Your task to perform on an android device: What is the recent news? Image 0: 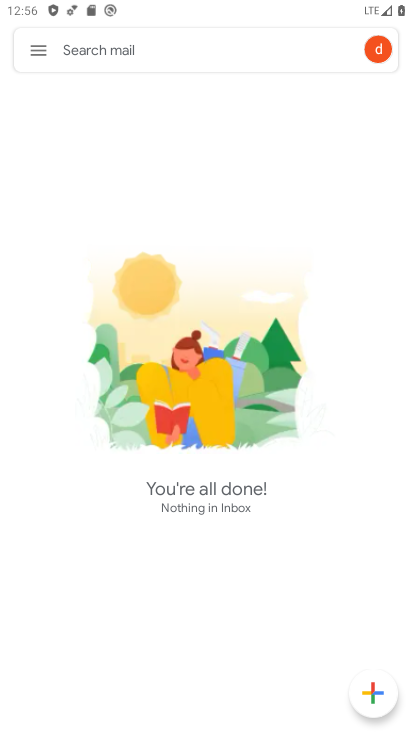
Step 0: press home button
Your task to perform on an android device: What is the recent news? Image 1: 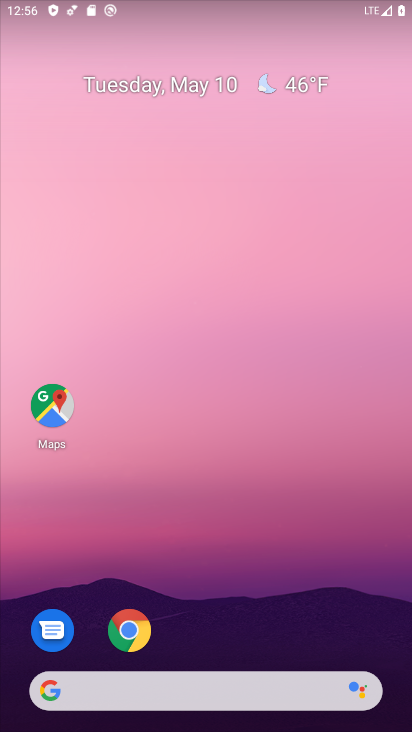
Step 1: drag from (210, 670) to (149, 89)
Your task to perform on an android device: What is the recent news? Image 2: 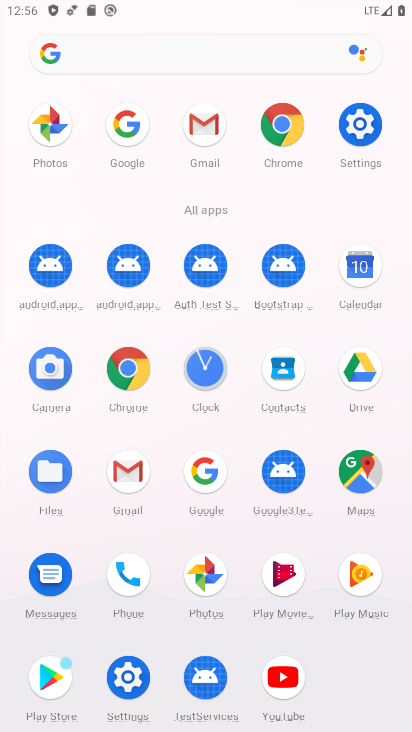
Step 2: click (201, 481)
Your task to perform on an android device: What is the recent news? Image 3: 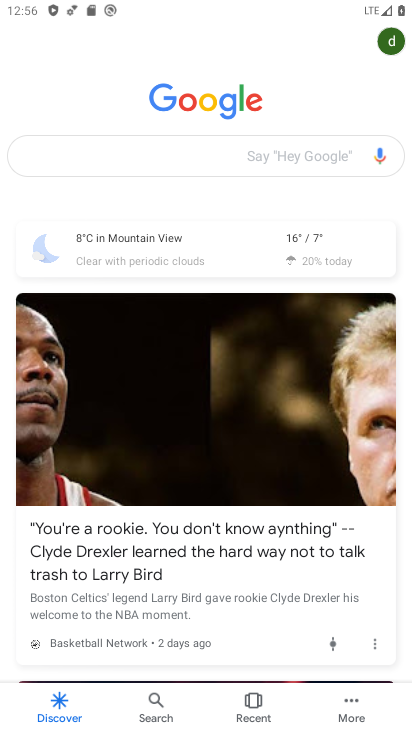
Step 3: task complete